Your task to perform on an android device: When is my next appointment? Image 0: 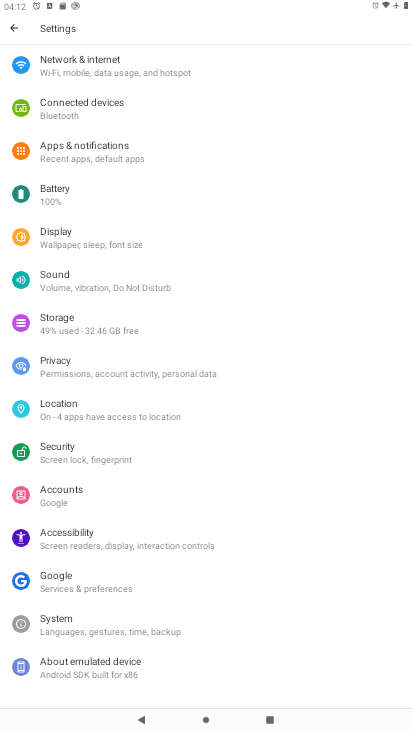
Step 0: press home button
Your task to perform on an android device: When is my next appointment? Image 1: 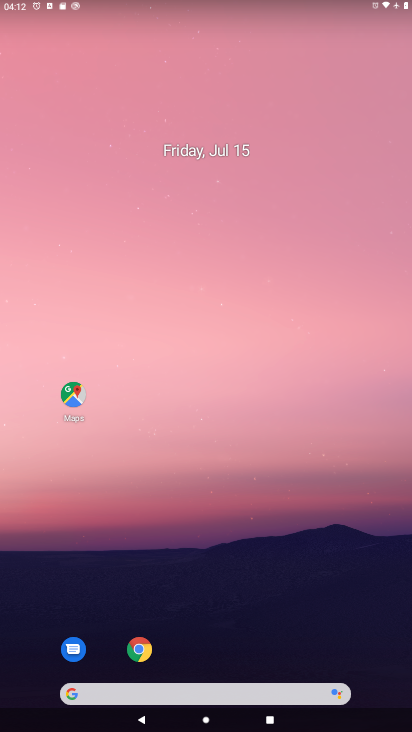
Step 1: drag from (391, 675) to (331, 58)
Your task to perform on an android device: When is my next appointment? Image 2: 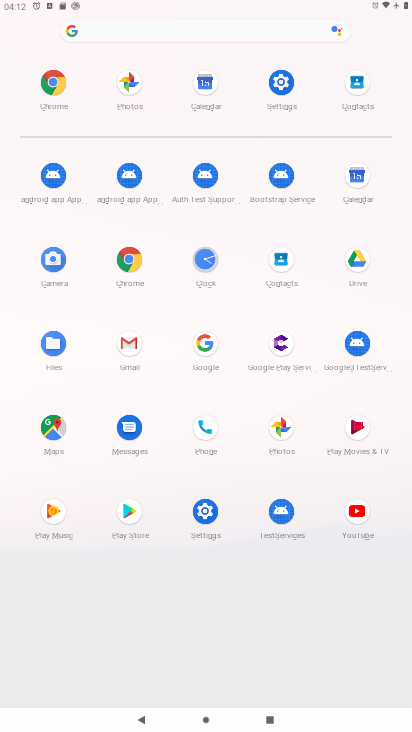
Step 2: click (354, 175)
Your task to perform on an android device: When is my next appointment? Image 3: 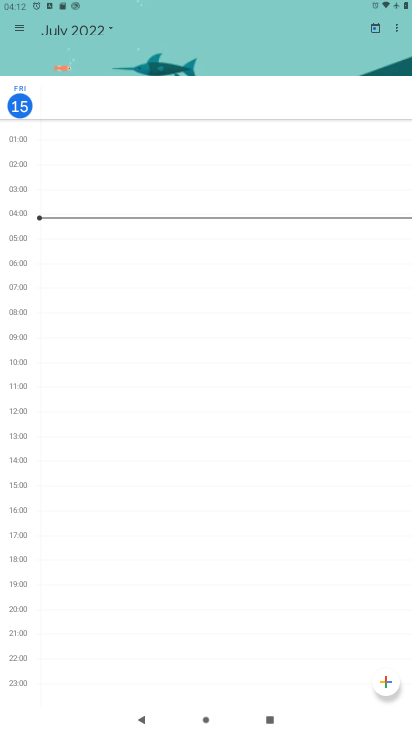
Step 3: click (19, 28)
Your task to perform on an android device: When is my next appointment? Image 4: 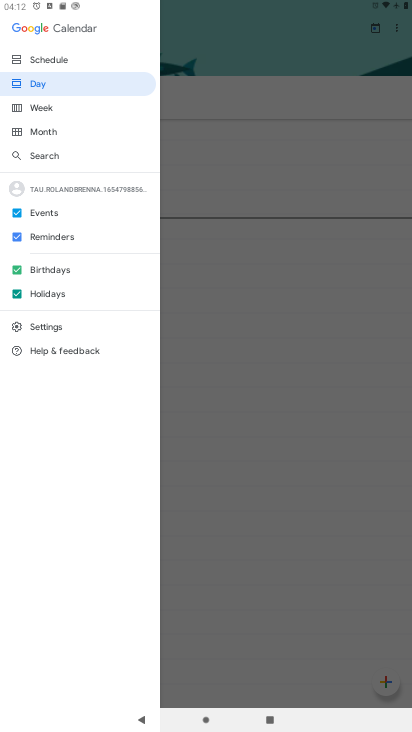
Step 4: click (40, 56)
Your task to perform on an android device: When is my next appointment? Image 5: 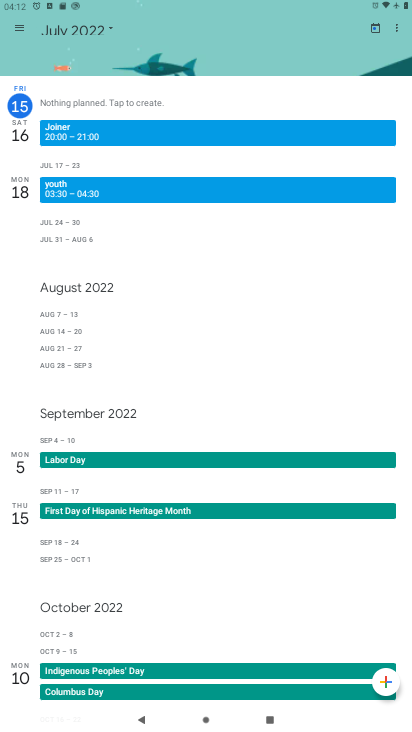
Step 5: task complete